Your task to perform on an android device: turn on translation in the chrome app Image 0: 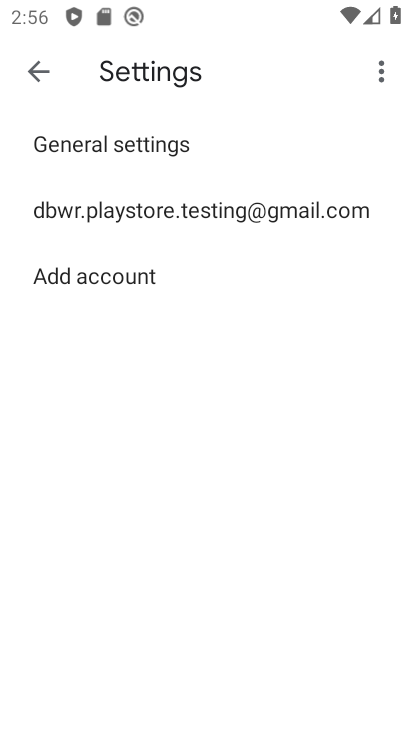
Step 0: press home button
Your task to perform on an android device: turn on translation in the chrome app Image 1: 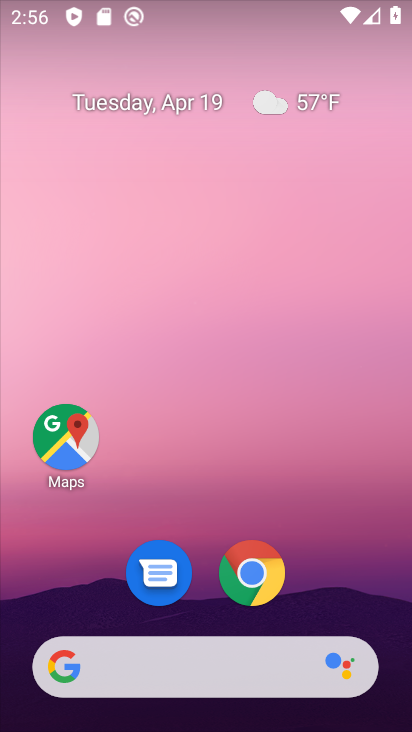
Step 1: click (235, 577)
Your task to perform on an android device: turn on translation in the chrome app Image 2: 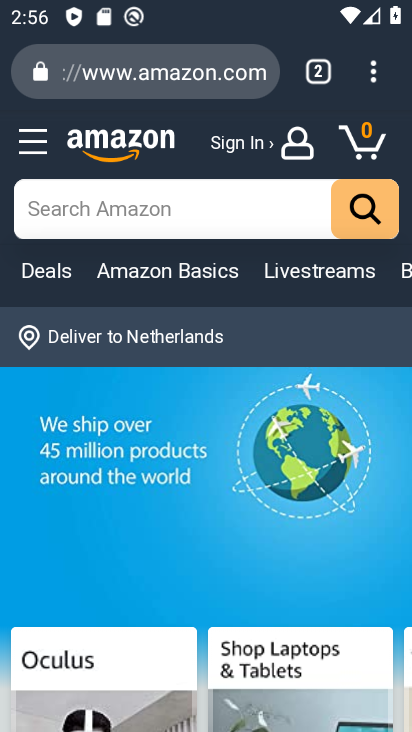
Step 2: click (378, 74)
Your task to perform on an android device: turn on translation in the chrome app Image 3: 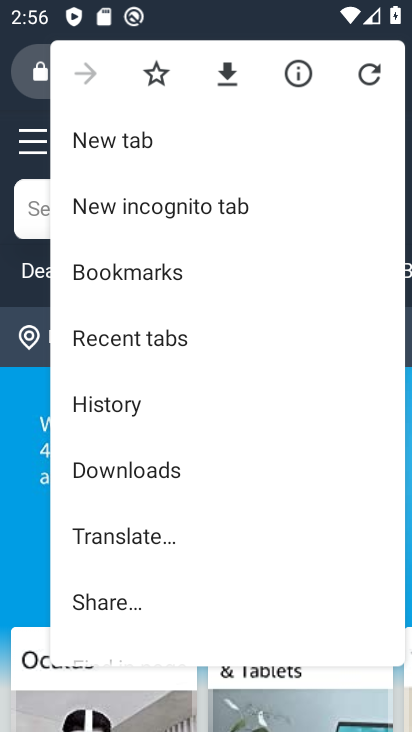
Step 3: drag from (311, 571) to (271, 182)
Your task to perform on an android device: turn on translation in the chrome app Image 4: 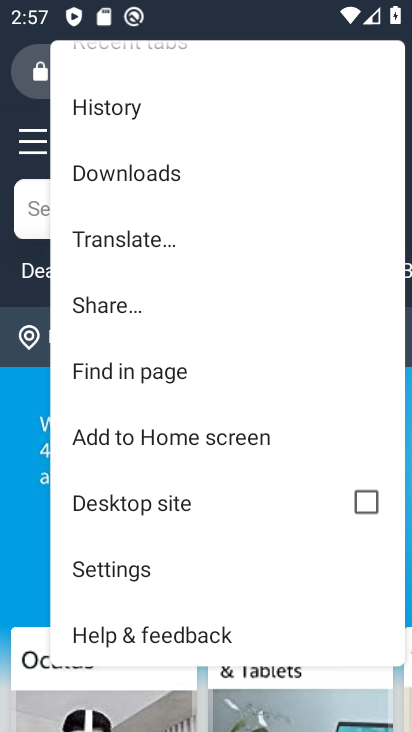
Step 4: click (109, 573)
Your task to perform on an android device: turn on translation in the chrome app Image 5: 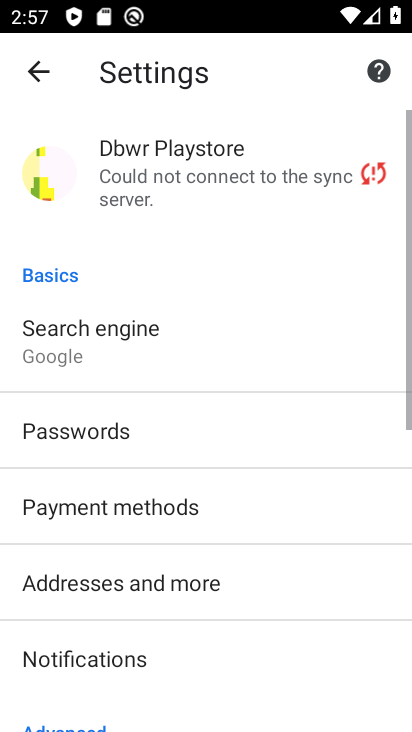
Step 5: drag from (305, 616) to (288, 216)
Your task to perform on an android device: turn on translation in the chrome app Image 6: 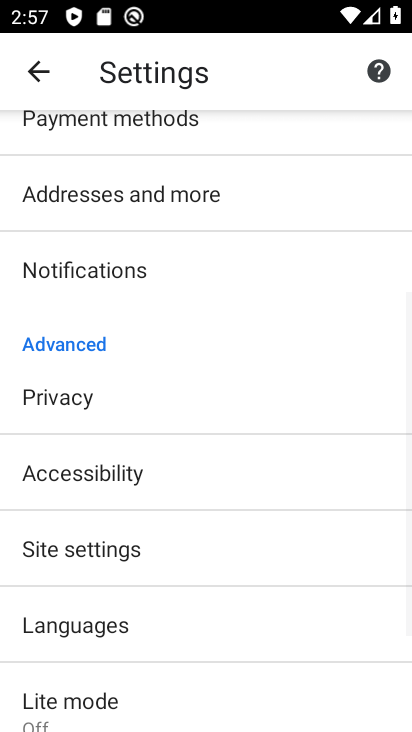
Step 6: drag from (256, 422) to (253, 277)
Your task to perform on an android device: turn on translation in the chrome app Image 7: 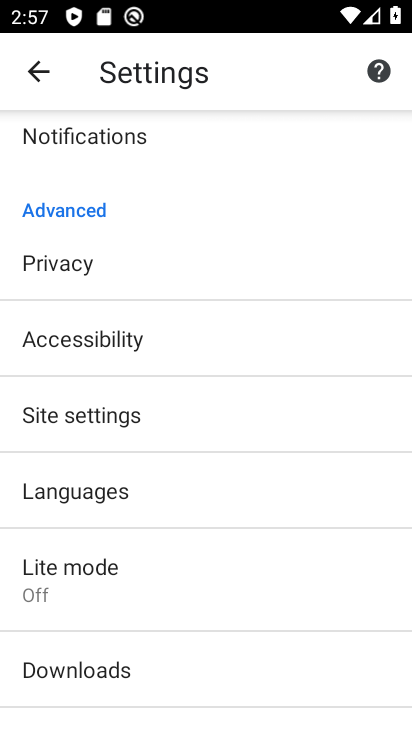
Step 7: click (69, 492)
Your task to perform on an android device: turn on translation in the chrome app Image 8: 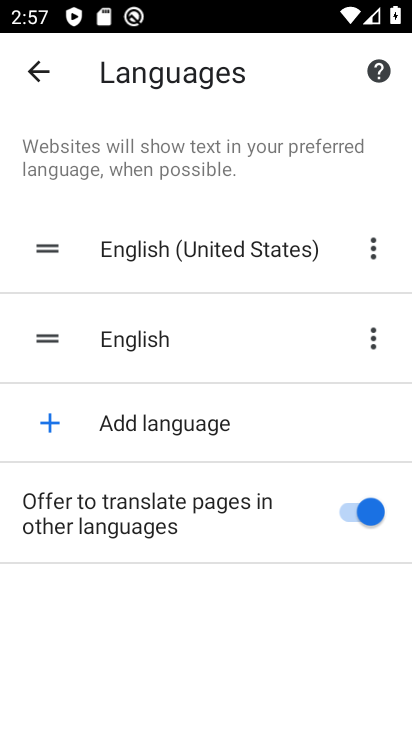
Step 8: task complete